Your task to perform on an android device: Open my contact list Image 0: 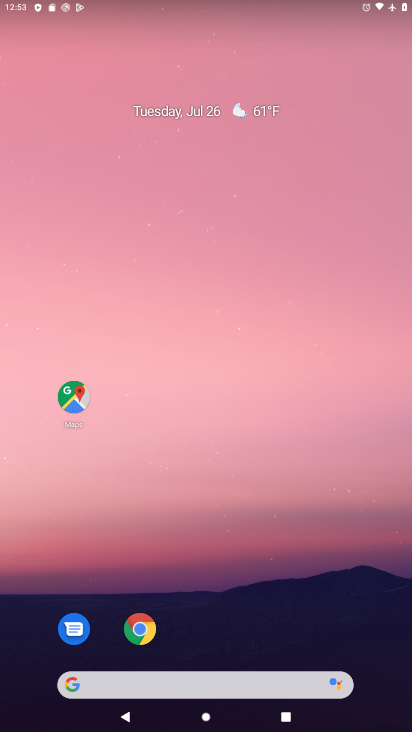
Step 0: drag from (206, 642) to (206, 113)
Your task to perform on an android device: Open my contact list Image 1: 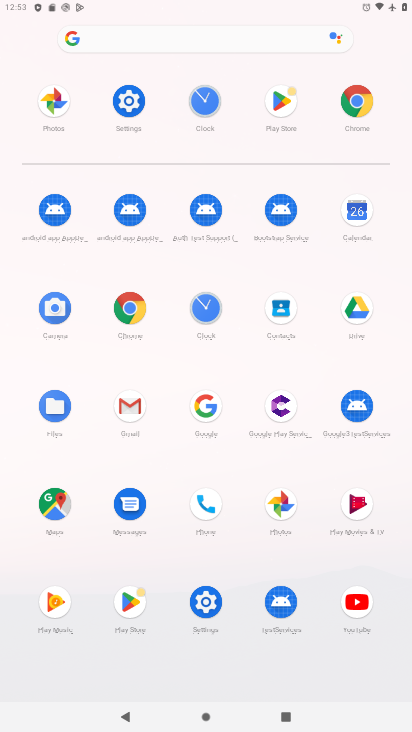
Step 1: click (200, 483)
Your task to perform on an android device: Open my contact list Image 2: 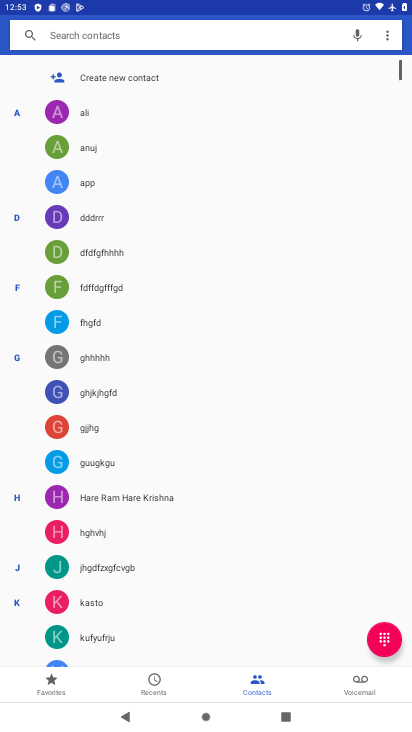
Step 2: task complete